Your task to perform on an android device: Add "jbl charge 4" to the cart on newegg.com Image 0: 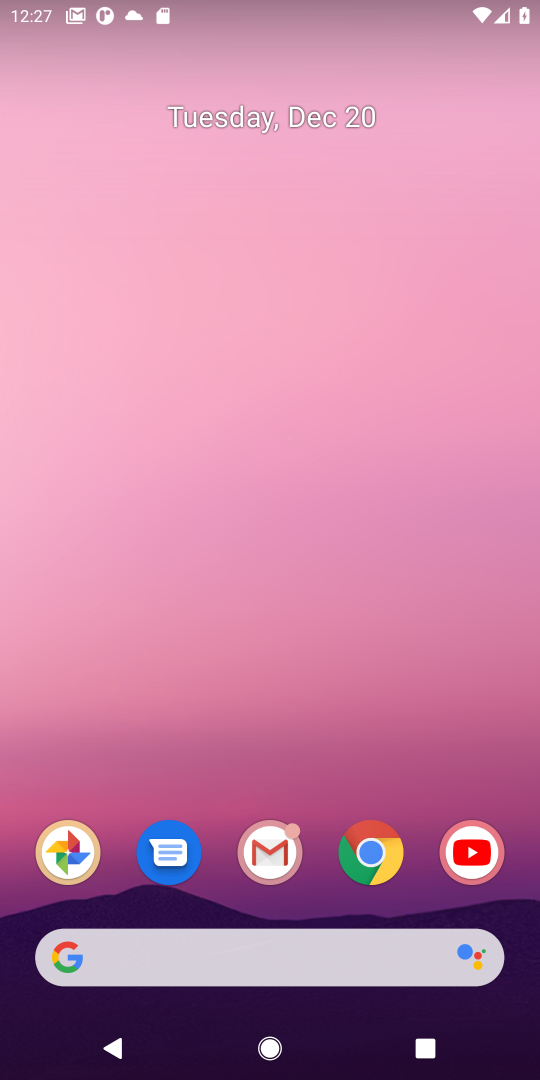
Step 0: click (376, 867)
Your task to perform on an android device: Add "jbl charge 4" to the cart on newegg.com Image 1: 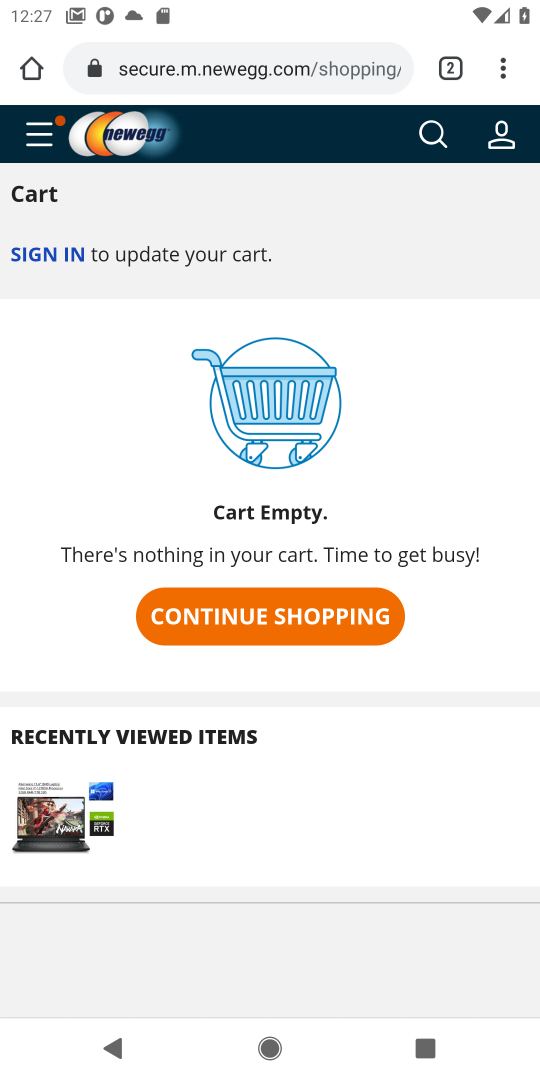
Step 1: click (432, 139)
Your task to perform on an android device: Add "jbl charge 4" to the cart on newegg.com Image 2: 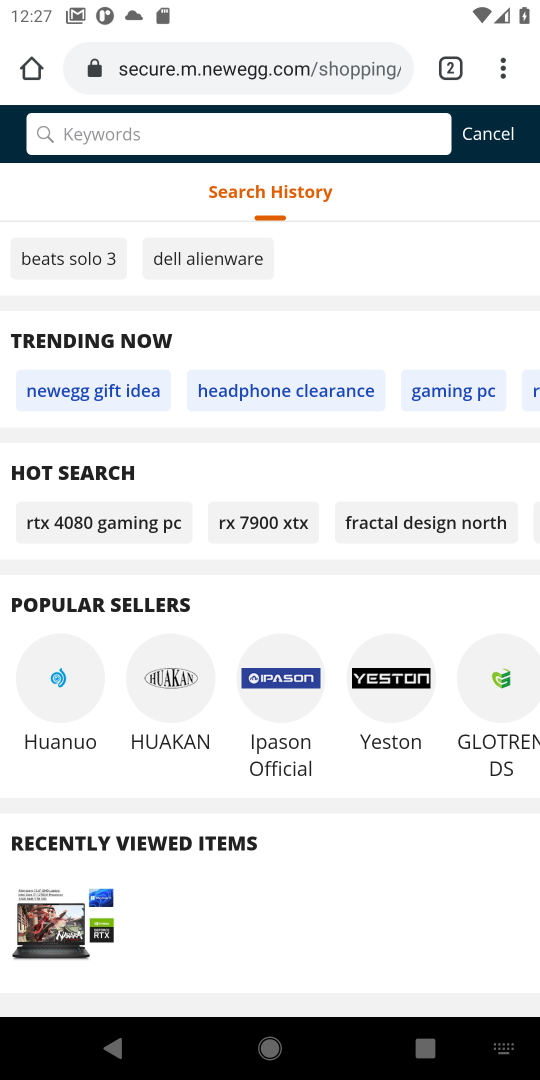
Step 2: type "jbl charge 4"
Your task to perform on an android device: Add "jbl charge 4" to the cart on newegg.com Image 3: 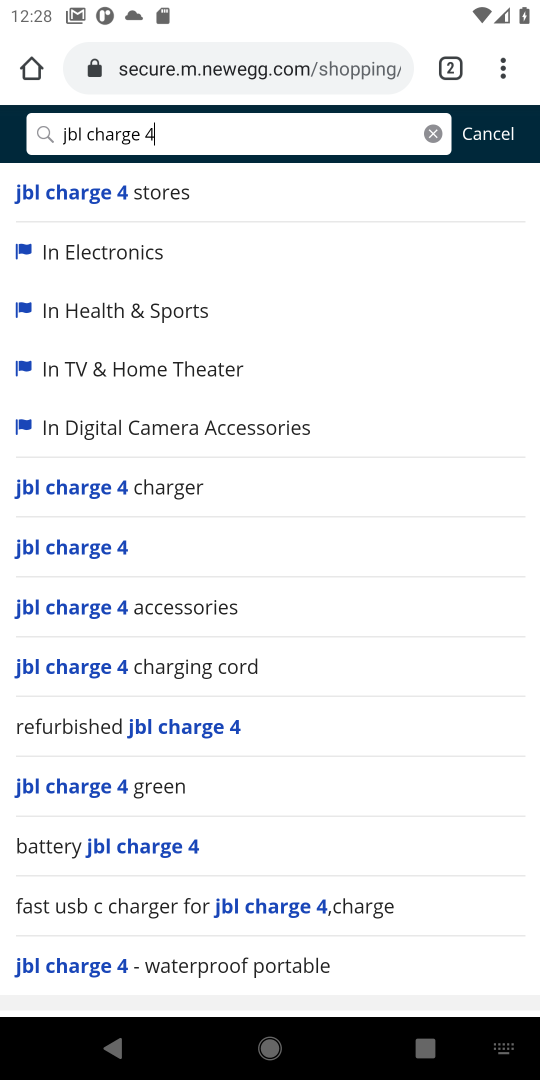
Step 3: click (63, 553)
Your task to perform on an android device: Add "jbl charge 4" to the cart on newegg.com Image 4: 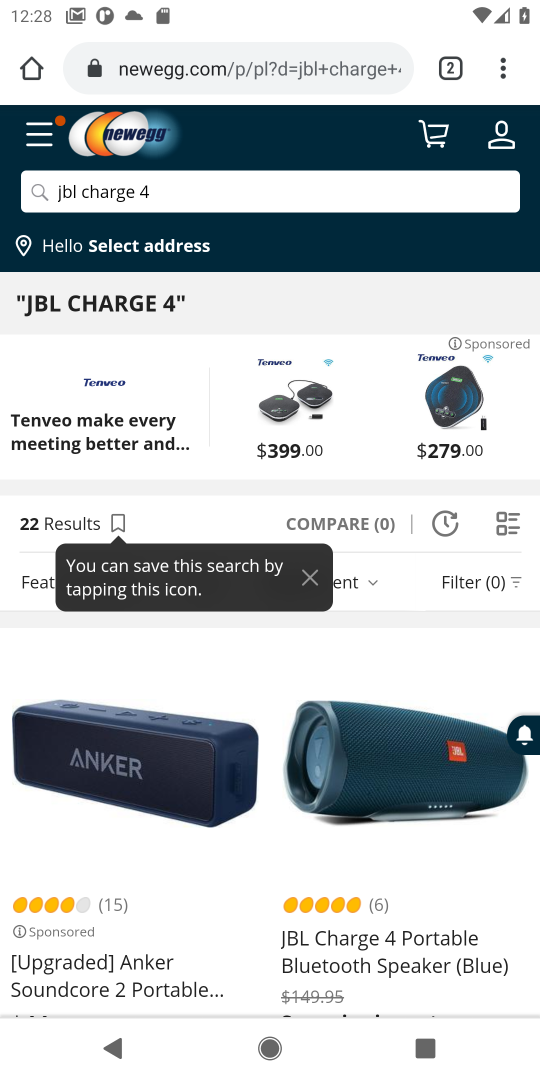
Step 4: drag from (129, 905) to (171, 640)
Your task to perform on an android device: Add "jbl charge 4" to the cart on newegg.com Image 5: 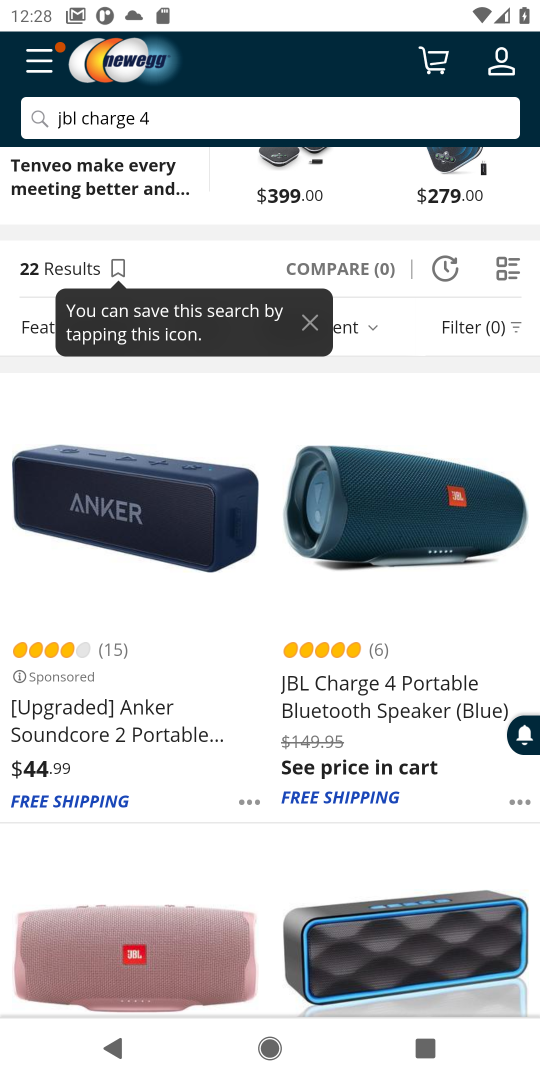
Step 5: click (348, 690)
Your task to perform on an android device: Add "jbl charge 4" to the cart on newegg.com Image 6: 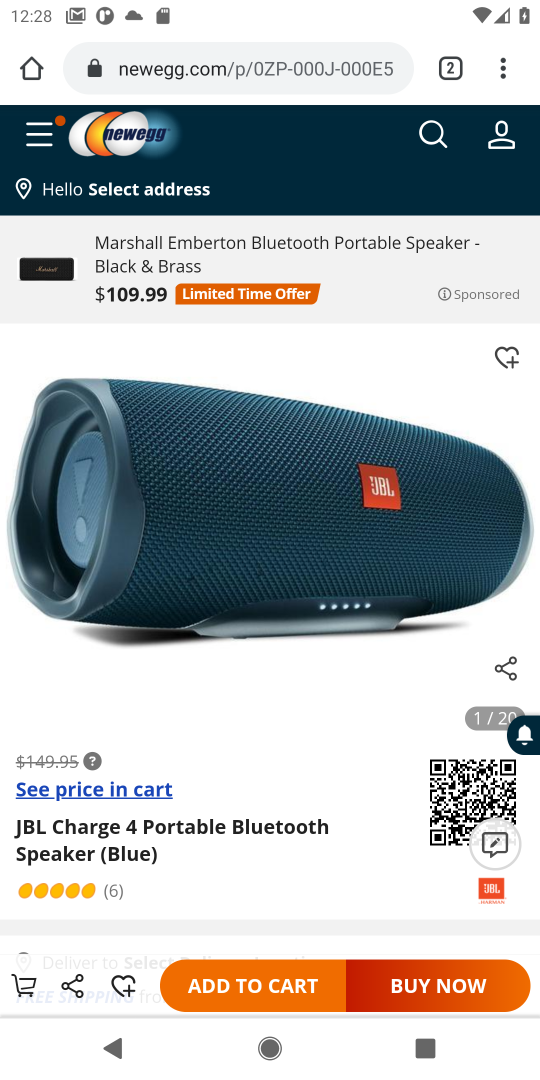
Step 6: click (246, 986)
Your task to perform on an android device: Add "jbl charge 4" to the cart on newegg.com Image 7: 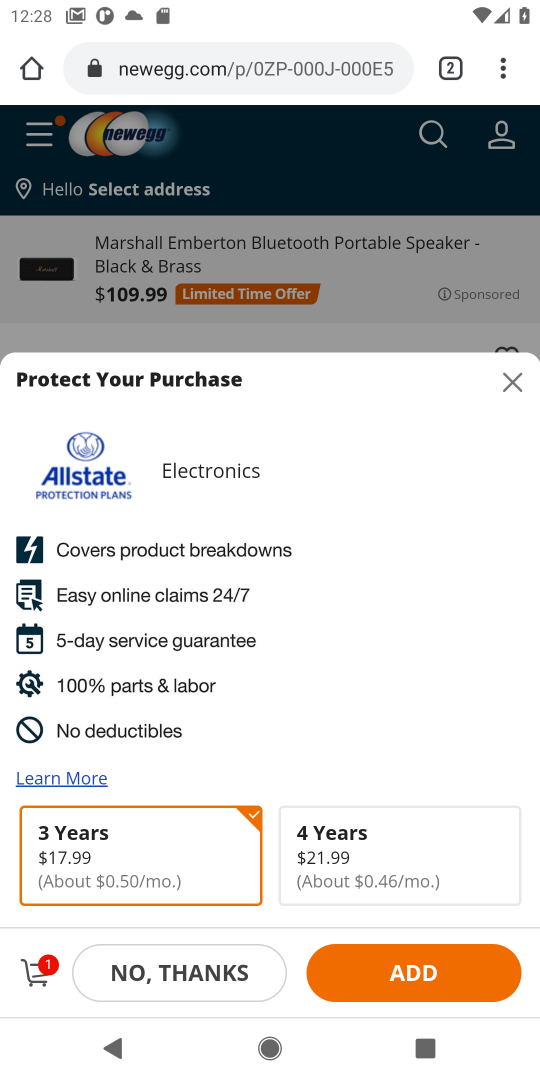
Step 7: task complete